Your task to perform on an android device: open app "Messages" Image 0: 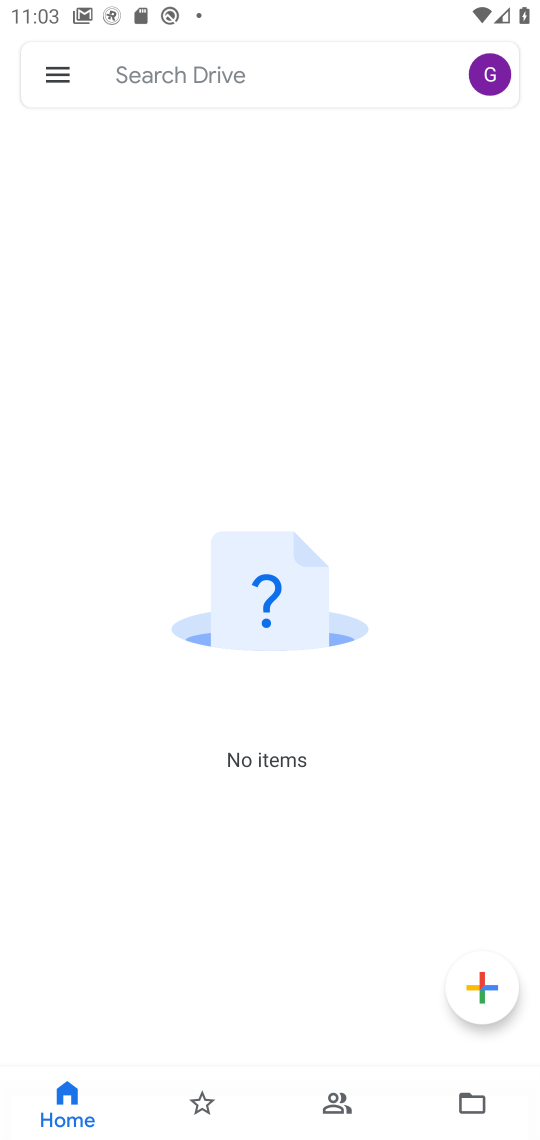
Step 0: press home button
Your task to perform on an android device: open app "Messages" Image 1: 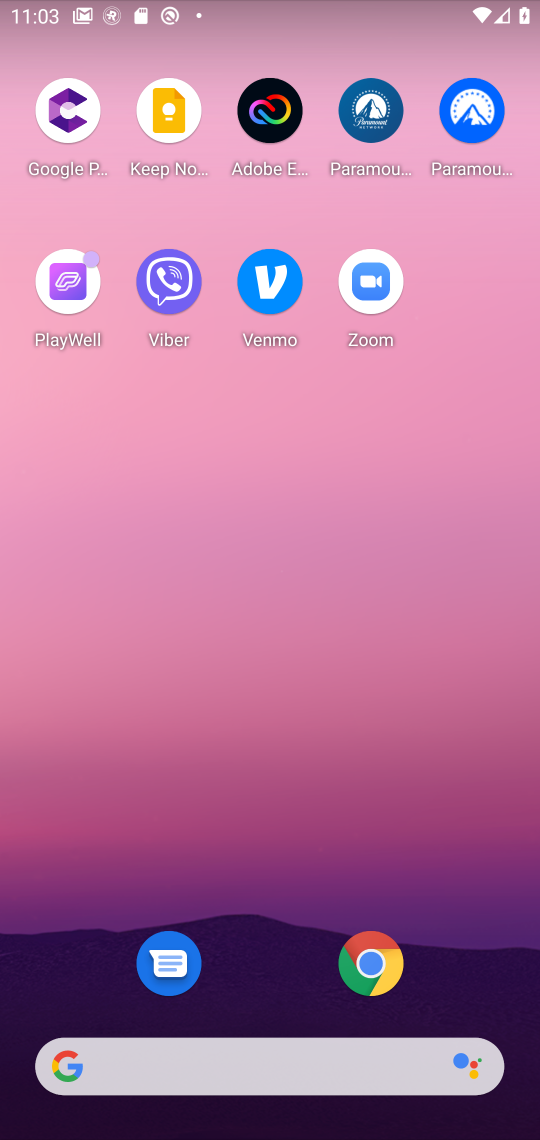
Step 1: click (171, 949)
Your task to perform on an android device: open app "Messages" Image 2: 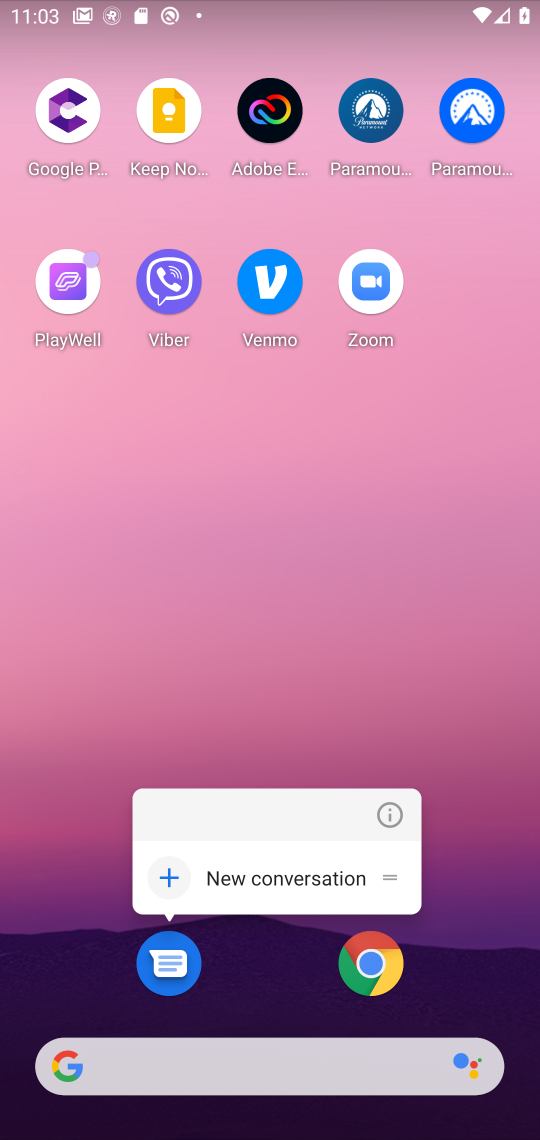
Step 2: click (176, 949)
Your task to perform on an android device: open app "Messages" Image 3: 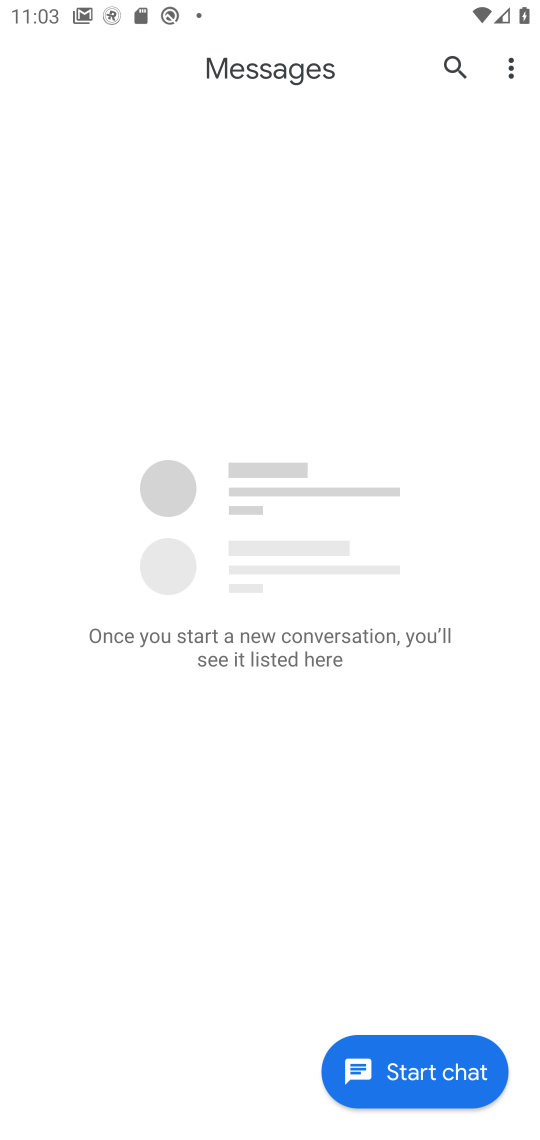
Step 3: task complete